Your task to perform on an android device: turn on translation in the chrome app Image 0: 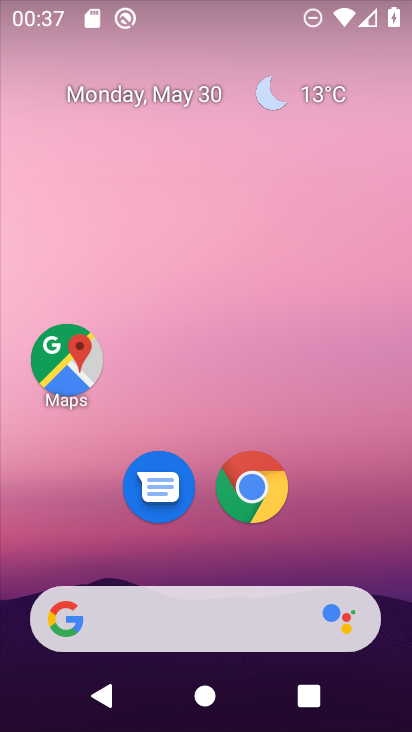
Step 0: click (259, 488)
Your task to perform on an android device: turn on translation in the chrome app Image 1: 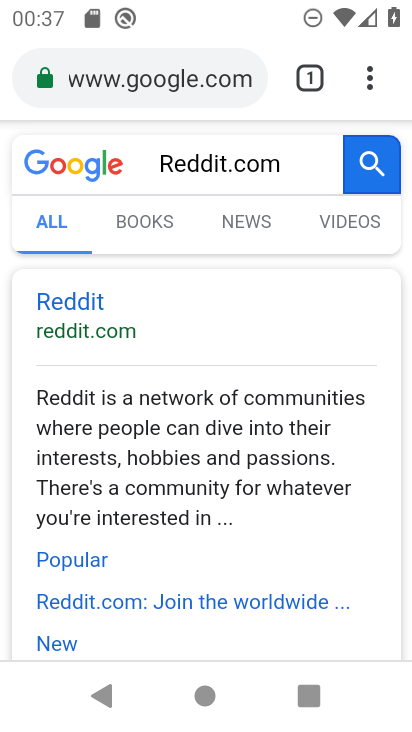
Step 1: click (370, 72)
Your task to perform on an android device: turn on translation in the chrome app Image 2: 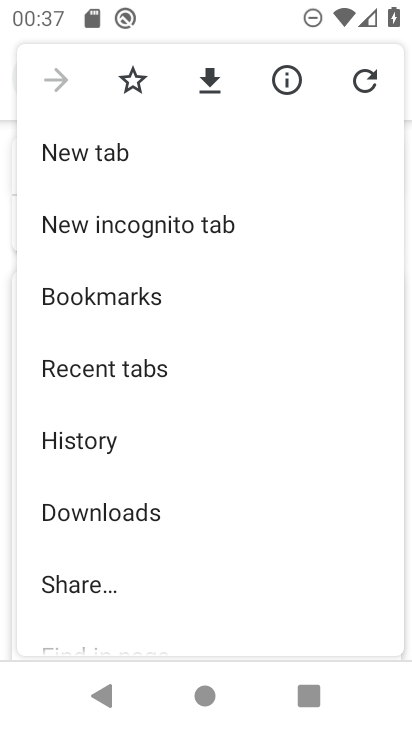
Step 2: drag from (314, 536) to (314, 186)
Your task to perform on an android device: turn on translation in the chrome app Image 3: 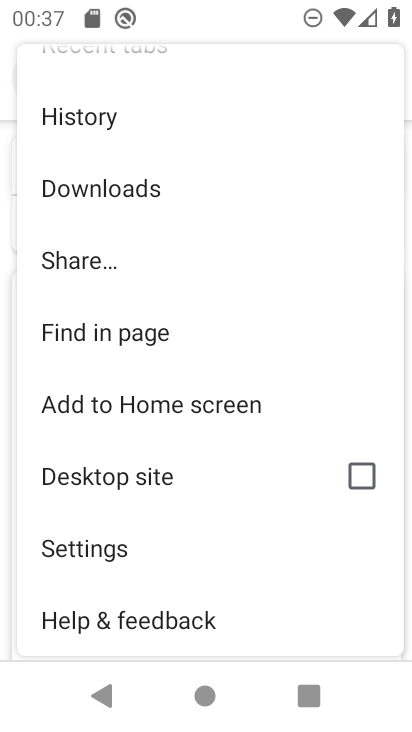
Step 3: drag from (218, 567) to (271, 219)
Your task to perform on an android device: turn on translation in the chrome app Image 4: 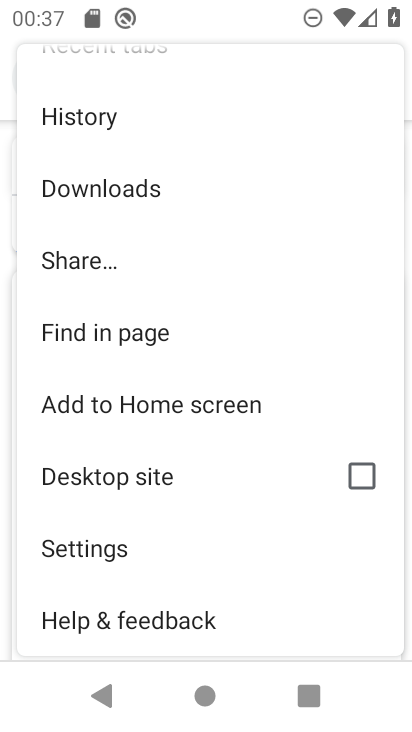
Step 4: click (103, 544)
Your task to perform on an android device: turn on translation in the chrome app Image 5: 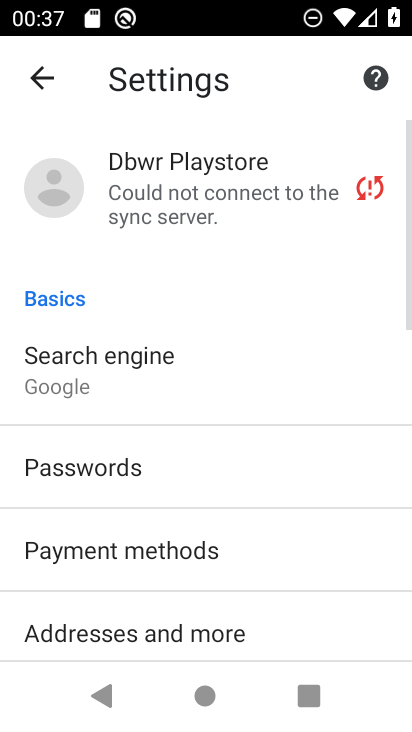
Step 5: drag from (299, 637) to (303, 191)
Your task to perform on an android device: turn on translation in the chrome app Image 6: 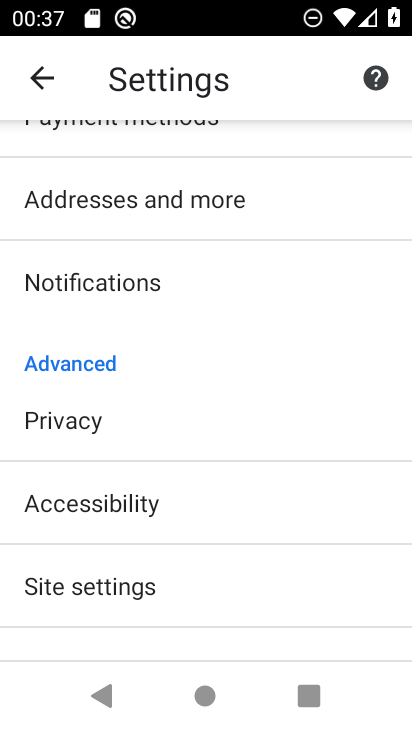
Step 6: drag from (232, 592) to (249, 349)
Your task to perform on an android device: turn on translation in the chrome app Image 7: 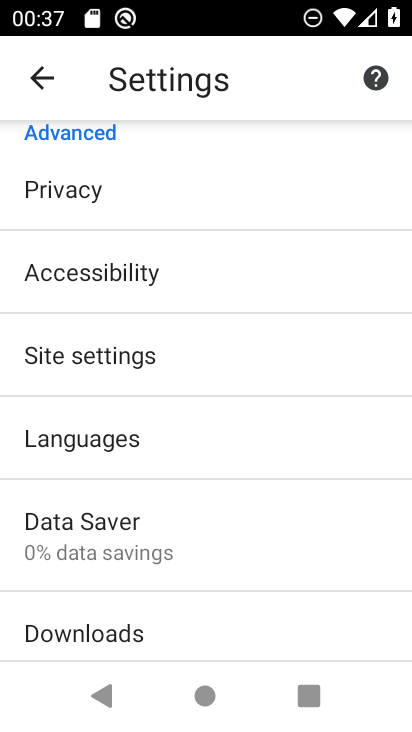
Step 7: click (113, 432)
Your task to perform on an android device: turn on translation in the chrome app Image 8: 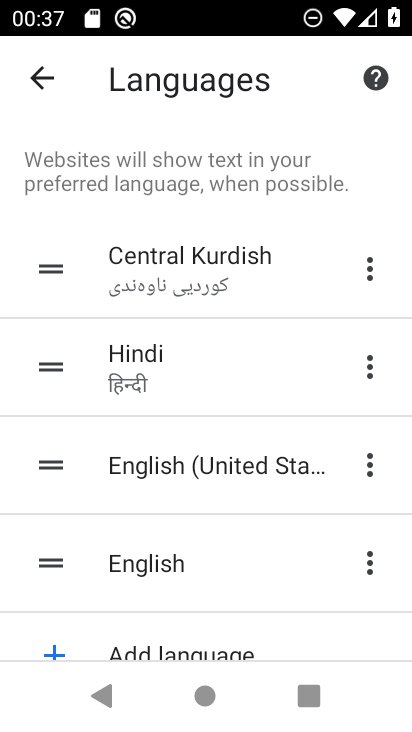
Step 8: task complete